Your task to perform on an android device: See recent photos Image 0: 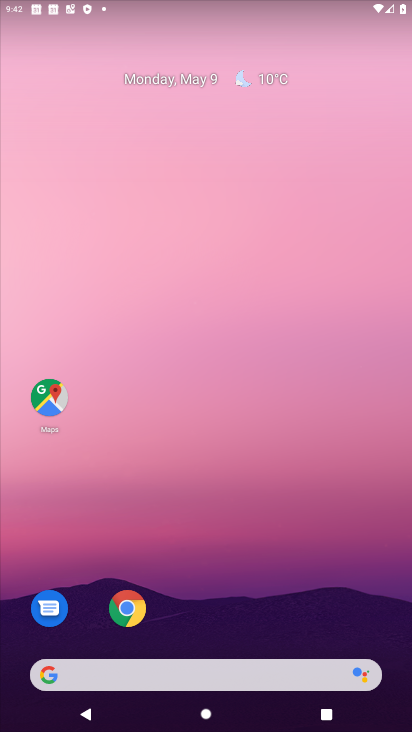
Step 0: drag from (312, 358) to (276, 55)
Your task to perform on an android device: See recent photos Image 1: 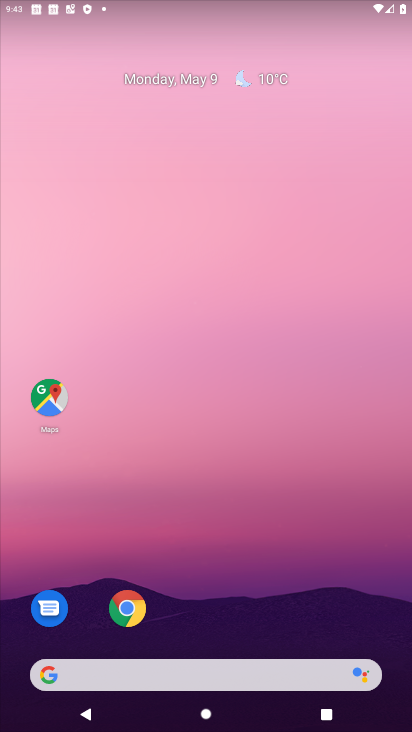
Step 1: drag from (324, 362) to (241, 133)
Your task to perform on an android device: See recent photos Image 2: 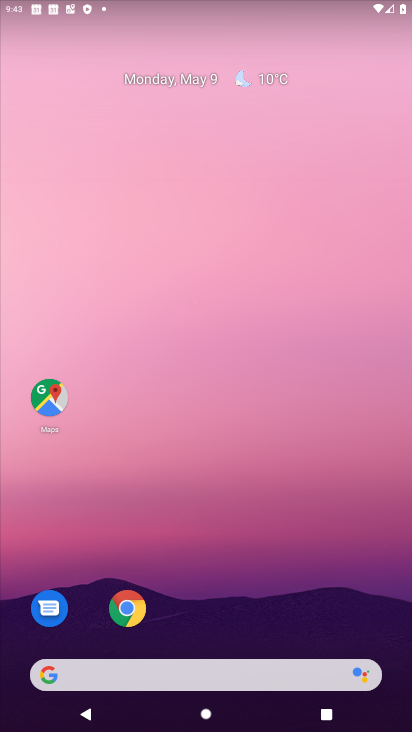
Step 2: drag from (244, 602) to (258, 3)
Your task to perform on an android device: See recent photos Image 3: 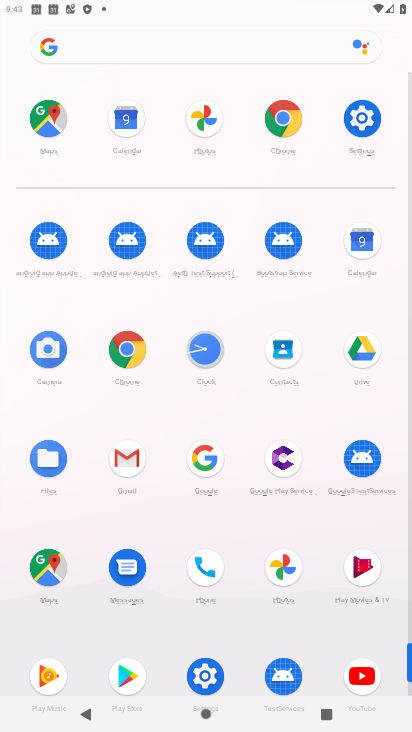
Step 3: click (206, 124)
Your task to perform on an android device: See recent photos Image 4: 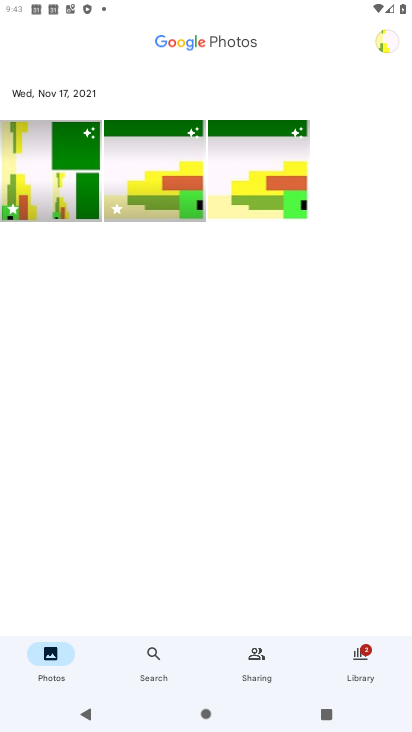
Step 4: click (54, 194)
Your task to perform on an android device: See recent photos Image 5: 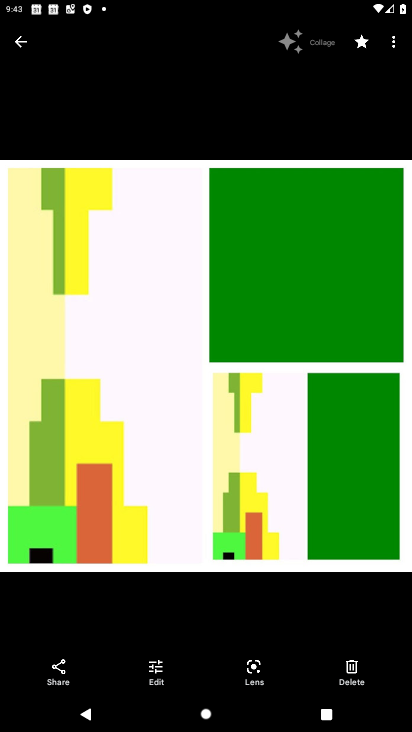
Step 5: task complete